Your task to perform on an android device: Open the phone app and click the voicemail tab. Image 0: 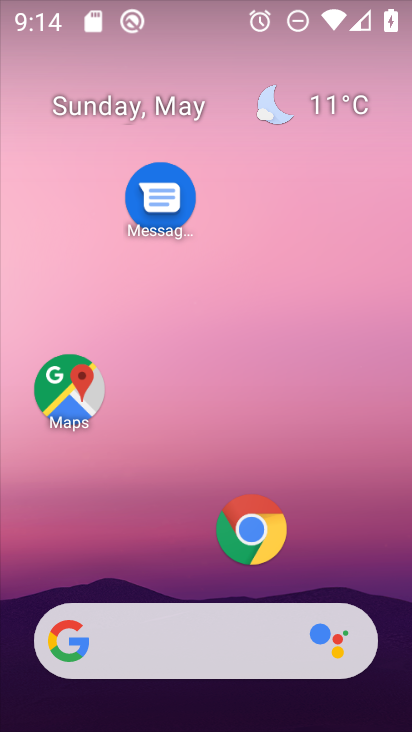
Step 0: press home button
Your task to perform on an android device: Open the phone app and click the voicemail tab. Image 1: 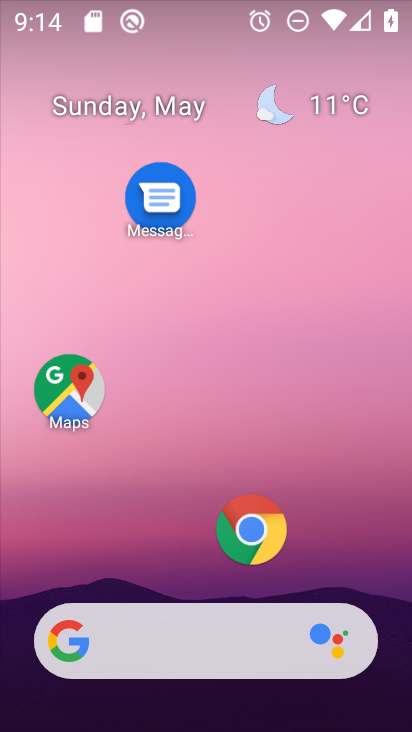
Step 1: drag from (198, 569) to (251, 59)
Your task to perform on an android device: Open the phone app and click the voicemail tab. Image 2: 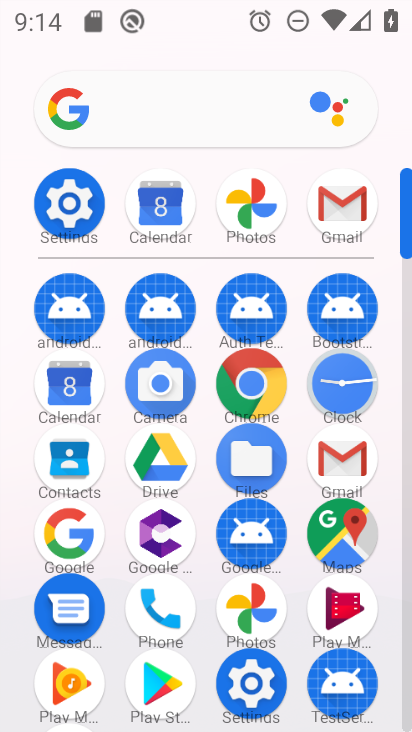
Step 2: click (159, 599)
Your task to perform on an android device: Open the phone app and click the voicemail tab. Image 3: 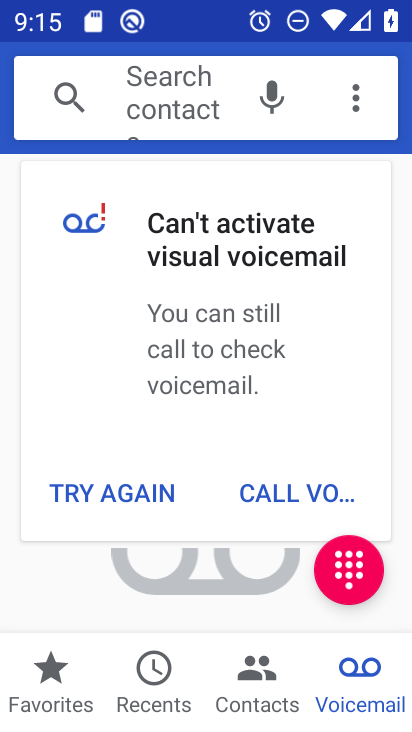
Step 3: click (343, 674)
Your task to perform on an android device: Open the phone app and click the voicemail tab. Image 4: 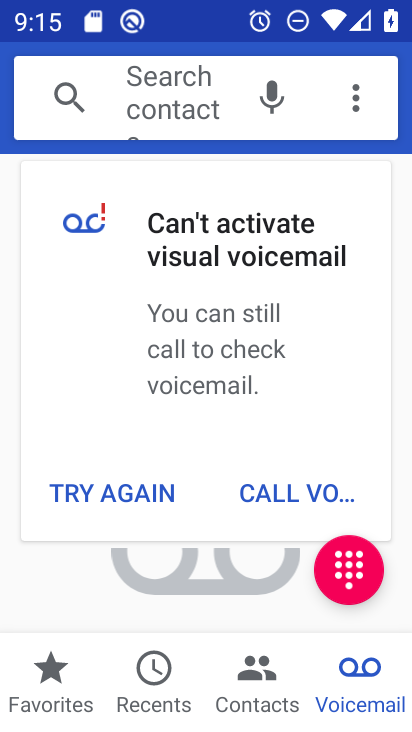
Step 4: task complete